Your task to perform on an android device: Show the shopping cart on bestbuy.com. Search for "usb-a to usb-b" on bestbuy.com, select the first entry, and add it to the cart. Image 0: 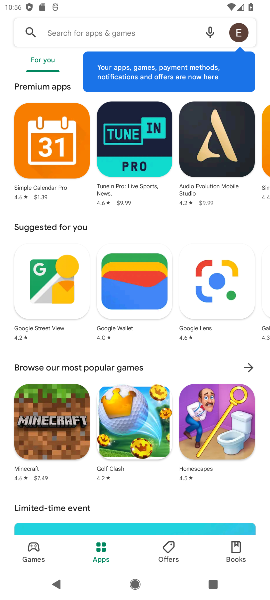
Step 0: press home button
Your task to perform on an android device: Show the shopping cart on bestbuy.com. Search for "usb-a to usb-b" on bestbuy.com, select the first entry, and add it to the cart. Image 1: 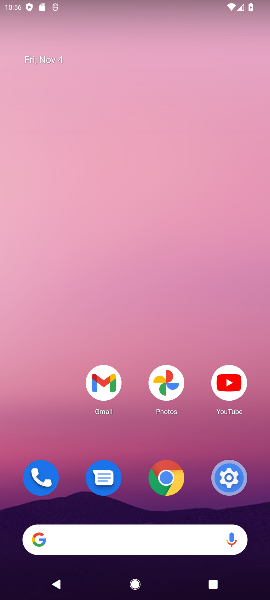
Step 1: click (167, 478)
Your task to perform on an android device: Show the shopping cart on bestbuy.com. Search for "usb-a to usb-b" on bestbuy.com, select the first entry, and add it to the cart. Image 2: 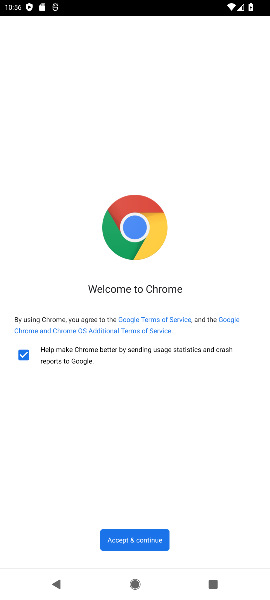
Step 2: click (134, 548)
Your task to perform on an android device: Show the shopping cart on bestbuy.com. Search for "usb-a to usb-b" on bestbuy.com, select the first entry, and add it to the cart. Image 3: 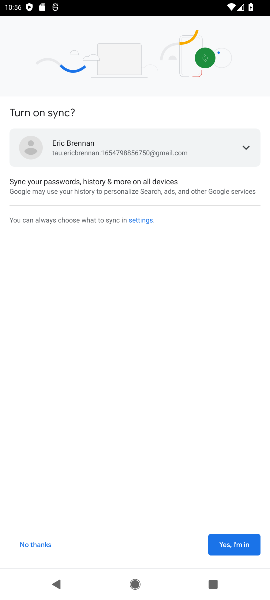
Step 3: click (241, 539)
Your task to perform on an android device: Show the shopping cart on bestbuy.com. Search for "usb-a to usb-b" on bestbuy.com, select the first entry, and add it to the cart. Image 4: 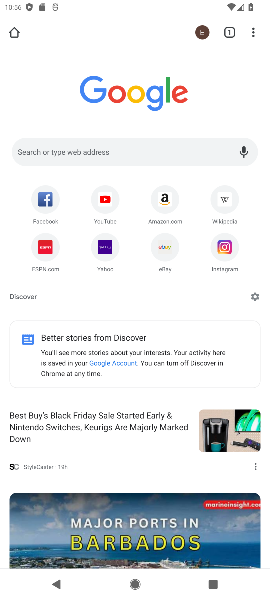
Step 4: click (149, 146)
Your task to perform on an android device: Show the shopping cart on bestbuy.com. Search for "usb-a to usb-b" on bestbuy.com, select the first entry, and add it to the cart. Image 5: 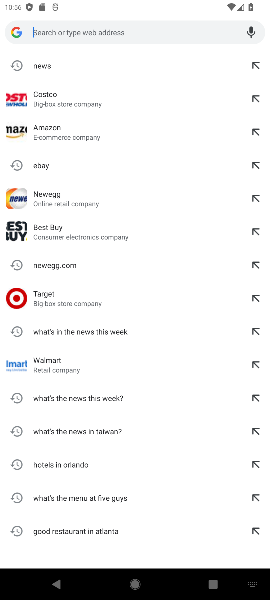
Step 5: type "bestbuy.com"
Your task to perform on an android device: Show the shopping cart on bestbuy.com. Search for "usb-a to usb-b" on bestbuy.com, select the first entry, and add it to the cart. Image 6: 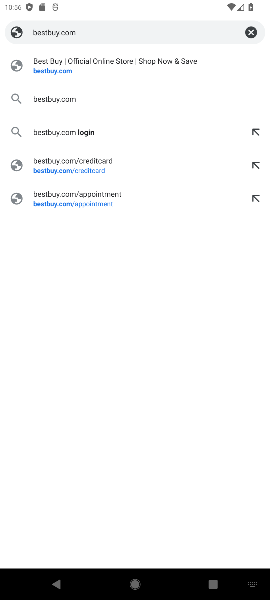
Step 6: click (66, 101)
Your task to perform on an android device: Show the shopping cart on bestbuy.com. Search for "usb-a to usb-b" on bestbuy.com, select the first entry, and add it to the cart. Image 7: 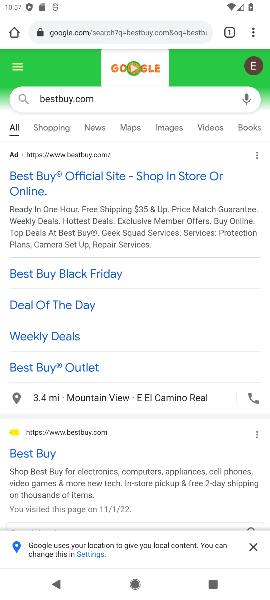
Step 7: click (57, 432)
Your task to perform on an android device: Show the shopping cart on bestbuy.com. Search for "usb-a to usb-b" on bestbuy.com, select the first entry, and add it to the cart. Image 8: 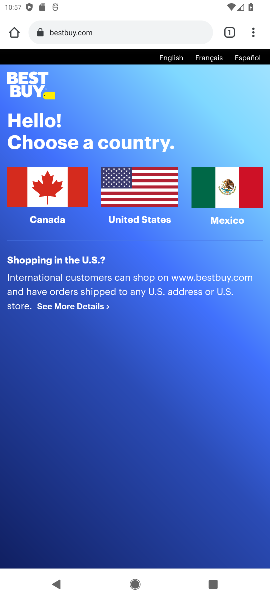
Step 8: click (138, 162)
Your task to perform on an android device: Show the shopping cart on bestbuy.com. Search for "usb-a to usb-b" on bestbuy.com, select the first entry, and add it to the cart. Image 9: 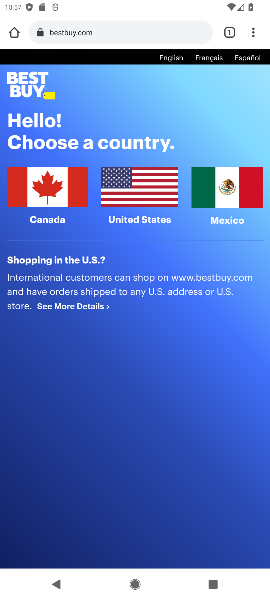
Step 9: click (144, 181)
Your task to perform on an android device: Show the shopping cart on bestbuy.com. Search for "usb-a to usb-b" on bestbuy.com, select the first entry, and add it to the cart. Image 10: 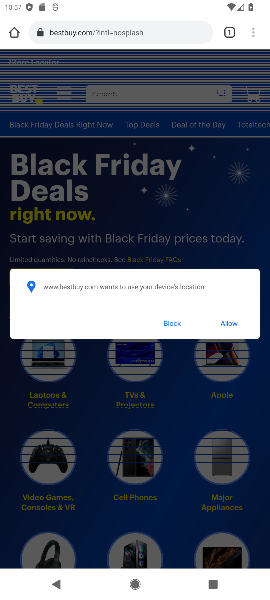
Step 10: click (171, 322)
Your task to perform on an android device: Show the shopping cart on bestbuy.com. Search for "usb-a to usb-b" on bestbuy.com, select the first entry, and add it to the cart. Image 11: 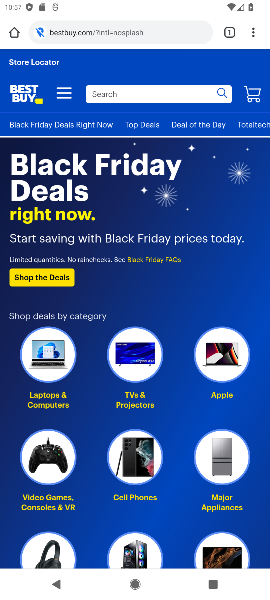
Step 11: click (198, 88)
Your task to perform on an android device: Show the shopping cart on bestbuy.com. Search for "usb-a to usb-b" on bestbuy.com, select the first entry, and add it to the cart. Image 12: 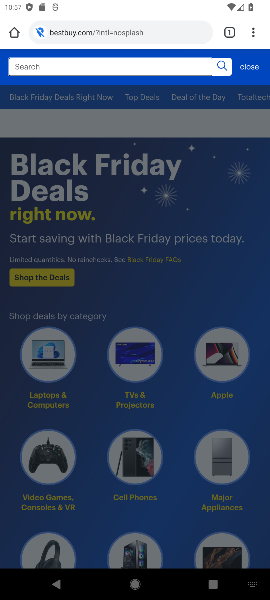
Step 12: type "usb-a to usb-b"
Your task to perform on an android device: Show the shopping cart on bestbuy.com. Search for "usb-a to usb-b" on bestbuy.com, select the first entry, and add it to the cart. Image 13: 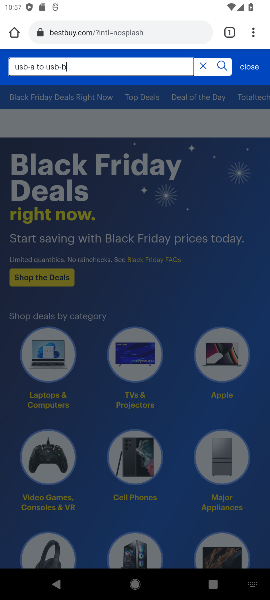
Step 13: click (262, 262)
Your task to perform on an android device: Show the shopping cart on bestbuy.com. Search for "usb-a to usb-b" on bestbuy.com, select the first entry, and add it to the cart. Image 14: 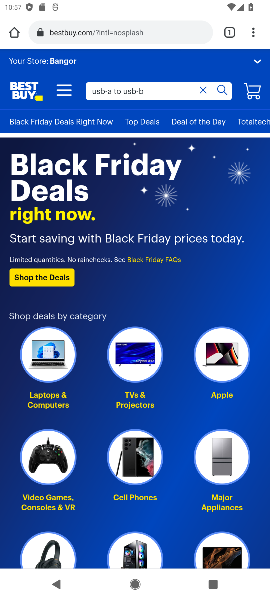
Step 14: task complete